Your task to perform on an android device: turn on notifications settings in the gmail app Image 0: 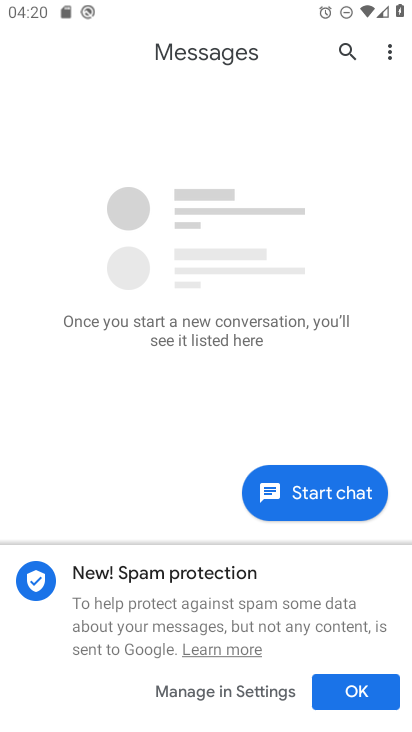
Step 0: press home button
Your task to perform on an android device: turn on notifications settings in the gmail app Image 1: 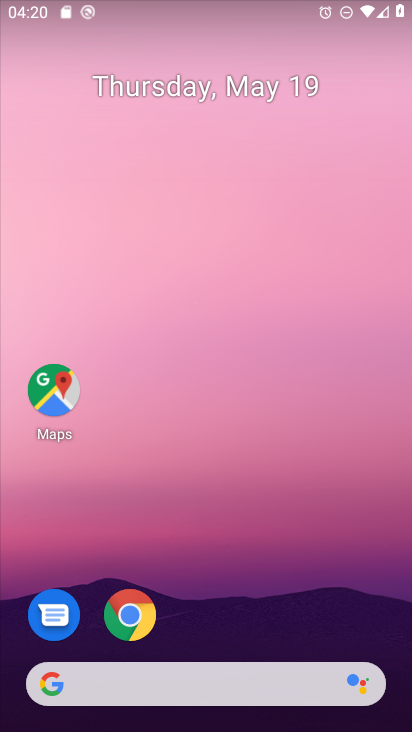
Step 1: drag from (243, 631) to (172, 75)
Your task to perform on an android device: turn on notifications settings in the gmail app Image 2: 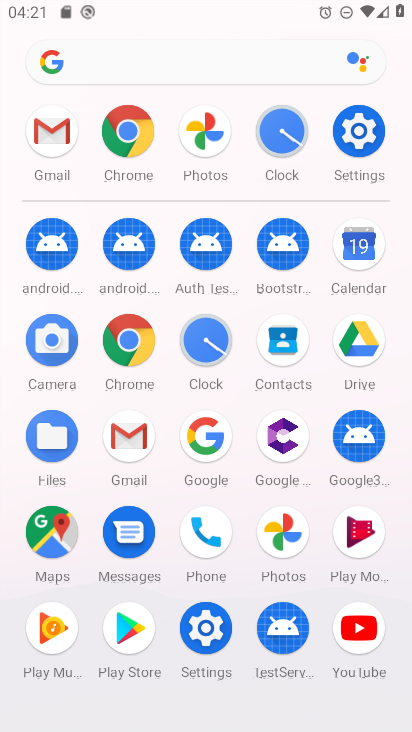
Step 2: click (44, 150)
Your task to perform on an android device: turn on notifications settings in the gmail app Image 3: 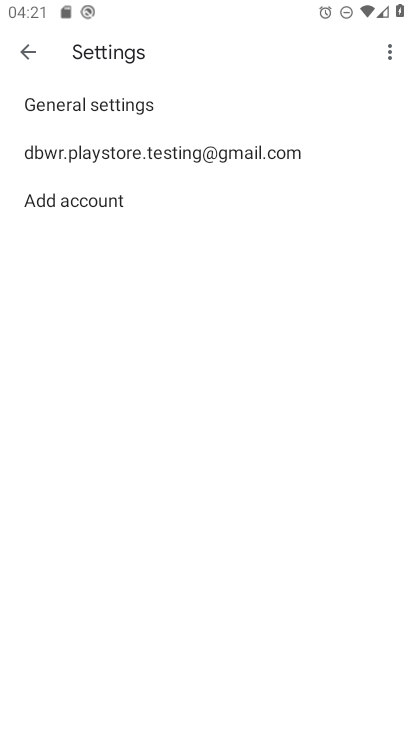
Step 3: click (326, 161)
Your task to perform on an android device: turn on notifications settings in the gmail app Image 4: 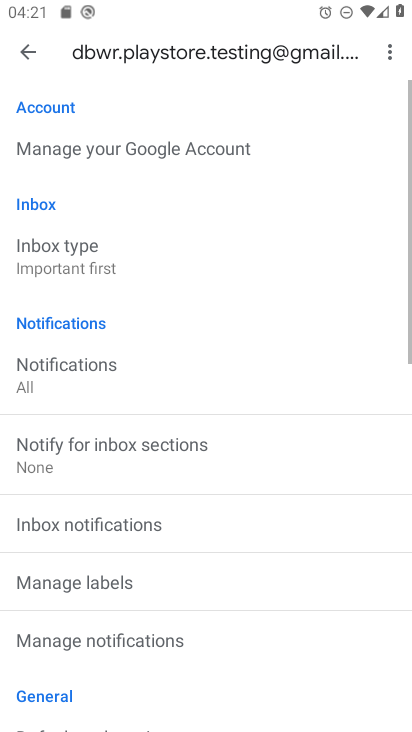
Step 4: click (229, 149)
Your task to perform on an android device: turn on notifications settings in the gmail app Image 5: 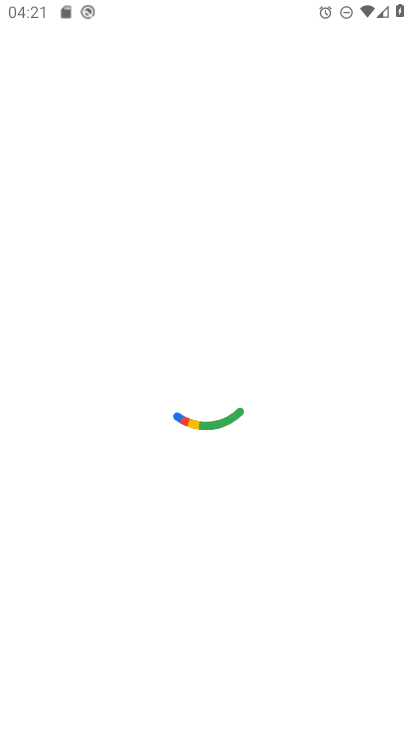
Step 5: press back button
Your task to perform on an android device: turn on notifications settings in the gmail app Image 6: 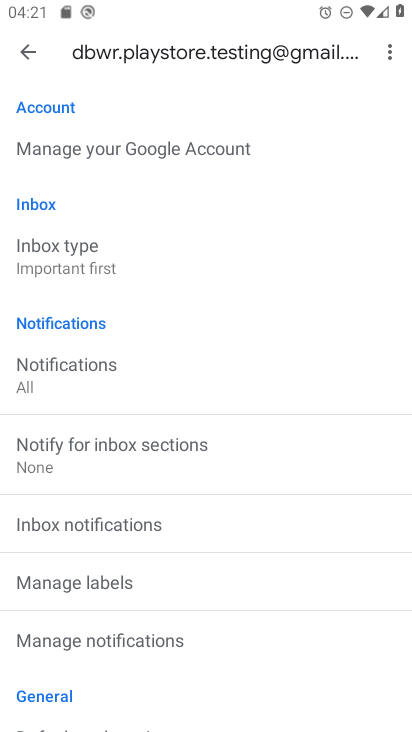
Step 6: click (276, 637)
Your task to perform on an android device: turn on notifications settings in the gmail app Image 7: 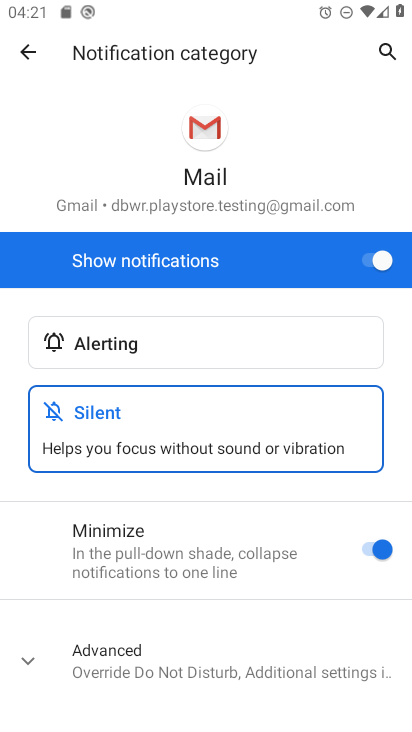
Step 7: task complete